Your task to perform on an android device: Open battery settings Image 0: 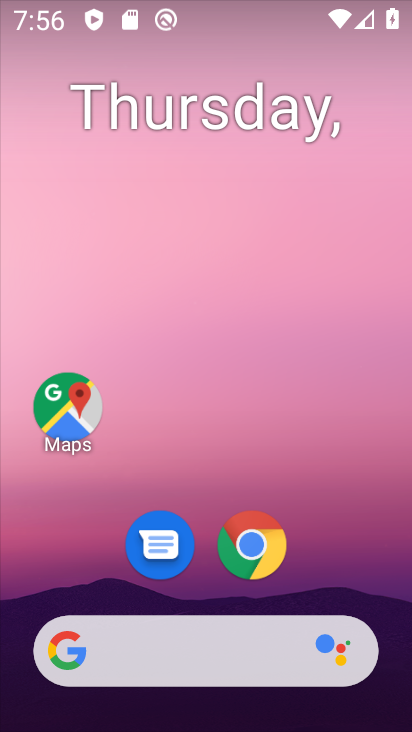
Step 0: drag from (305, 210) to (305, 132)
Your task to perform on an android device: Open battery settings Image 1: 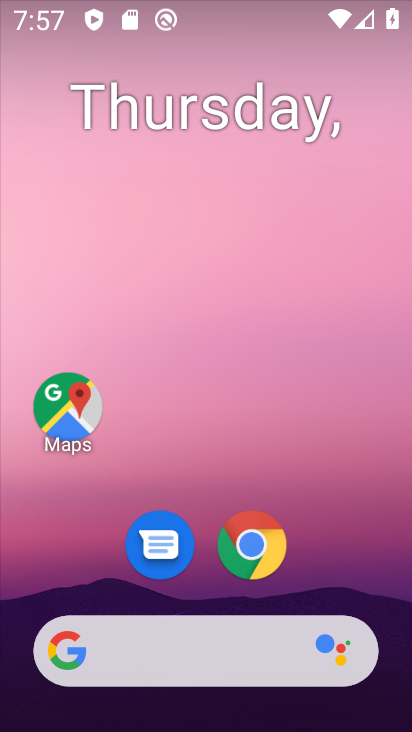
Step 1: drag from (206, 558) to (280, 207)
Your task to perform on an android device: Open battery settings Image 2: 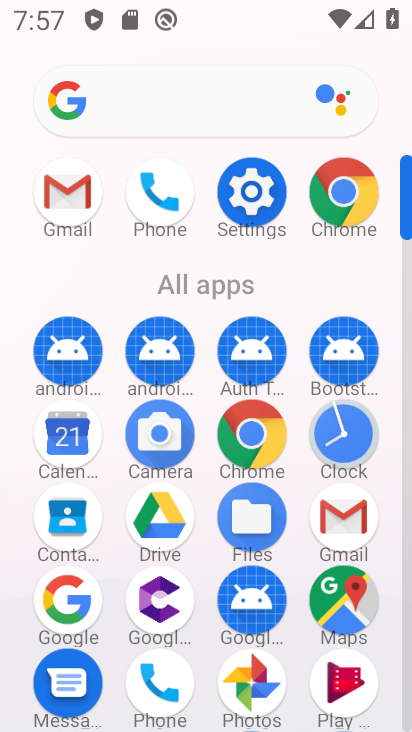
Step 2: click (259, 180)
Your task to perform on an android device: Open battery settings Image 3: 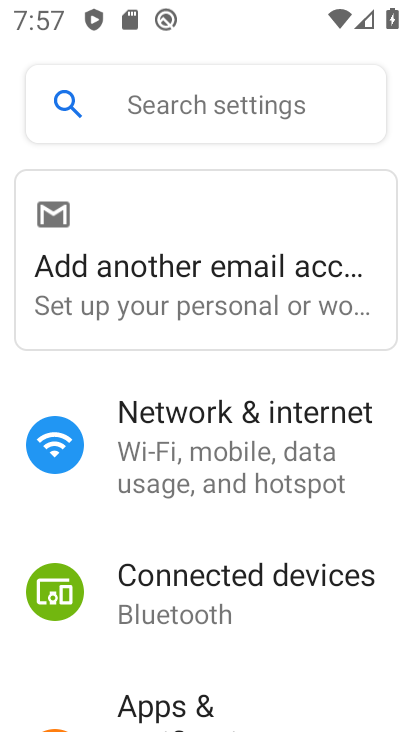
Step 3: drag from (254, 563) to (304, 104)
Your task to perform on an android device: Open battery settings Image 4: 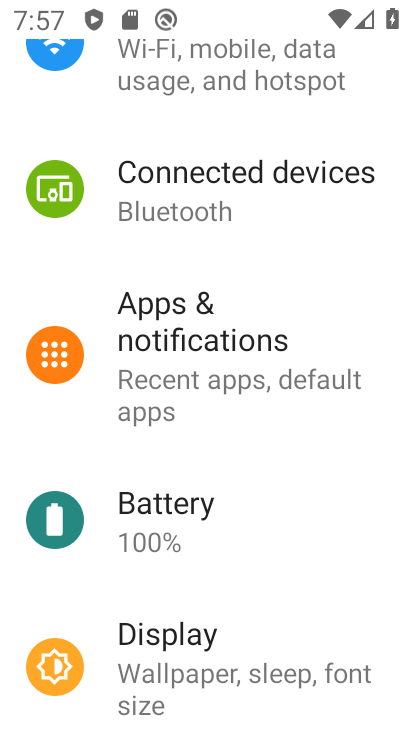
Step 4: click (207, 506)
Your task to perform on an android device: Open battery settings Image 5: 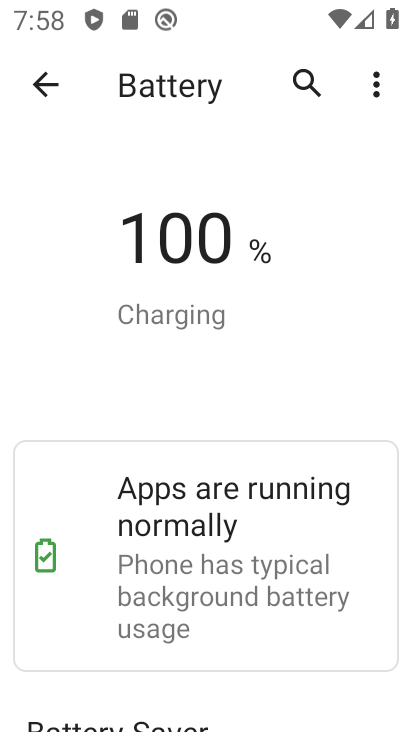
Step 5: task complete